Your task to perform on an android device: check storage Image 0: 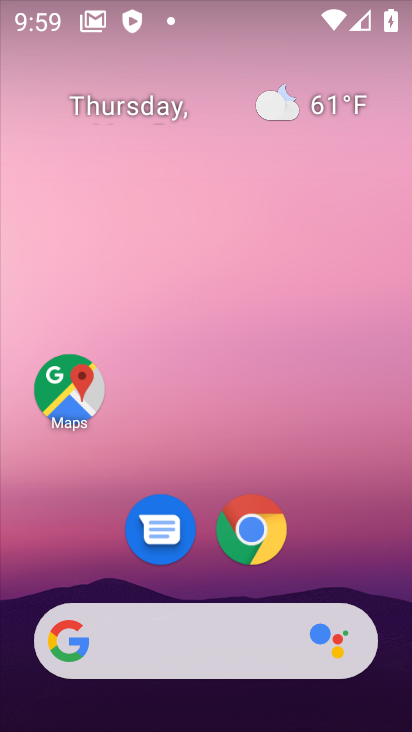
Step 0: click (352, 169)
Your task to perform on an android device: check storage Image 1: 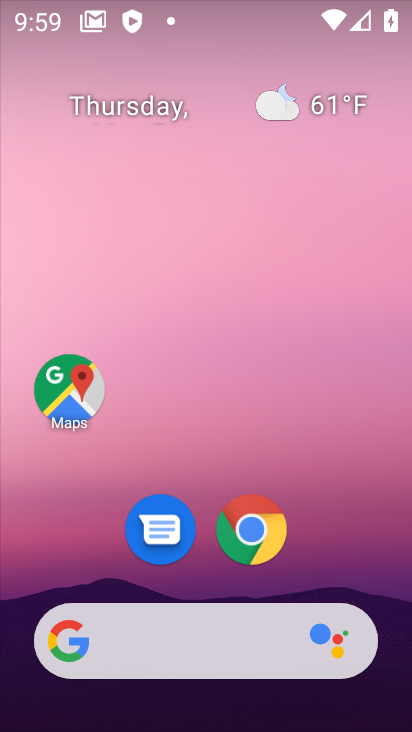
Step 1: drag from (389, 624) to (349, 209)
Your task to perform on an android device: check storage Image 2: 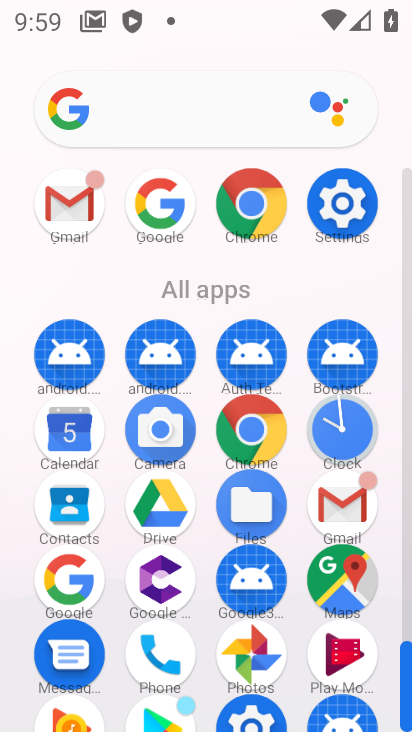
Step 2: click (351, 211)
Your task to perform on an android device: check storage Image 3: 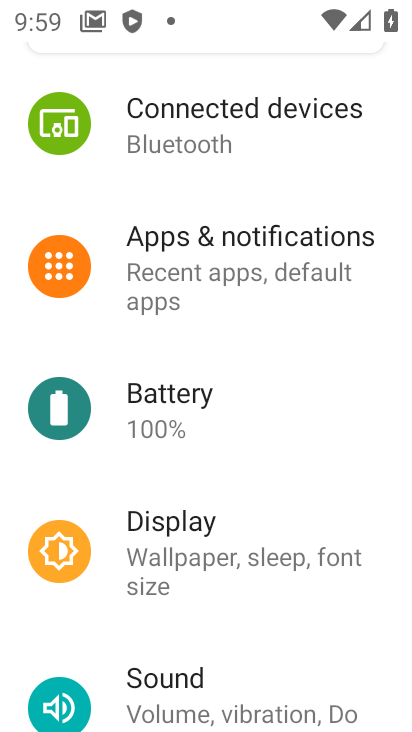
Step 3: drag from (285, 676) to (294, 340)
Your task to perform on an android device: check storage Image 4: 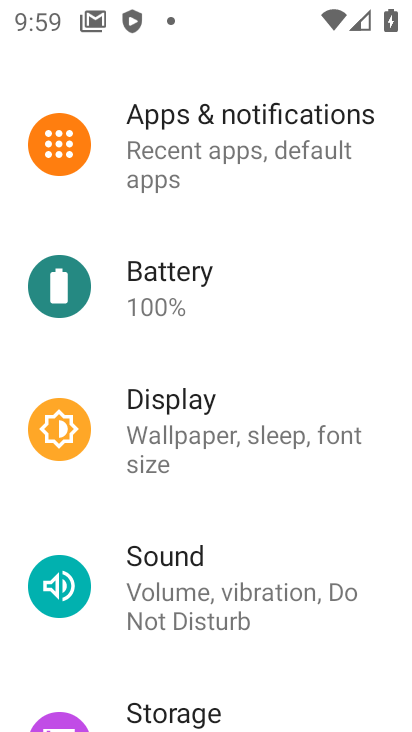
Step 4: click (211, 711)
Your task to perform on an android device: check storage Image 5: 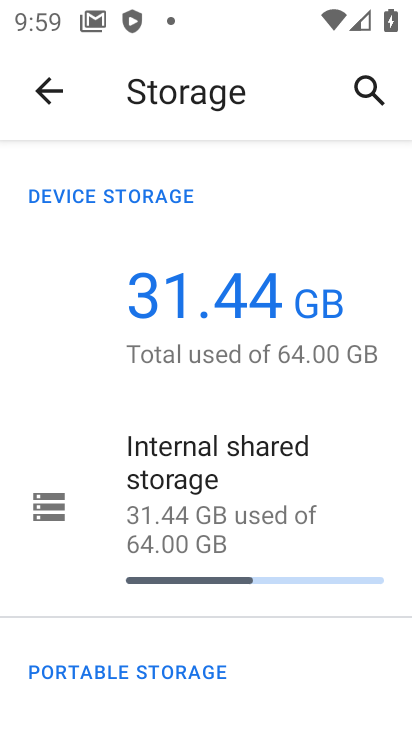
Step 5: task complete